Your task to perform on an android device: Show me the alarms in the clock app Image 0: 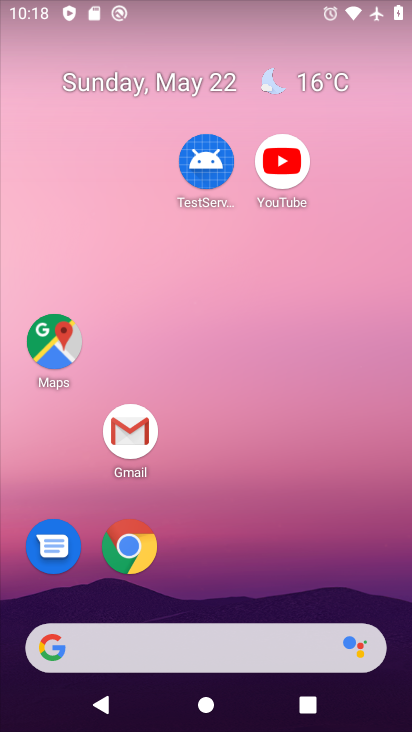
Step 0: drag from (272, 657) to (257, 23)
Your task to perform on an android device: Show me the alarms in the clock app Image 1: 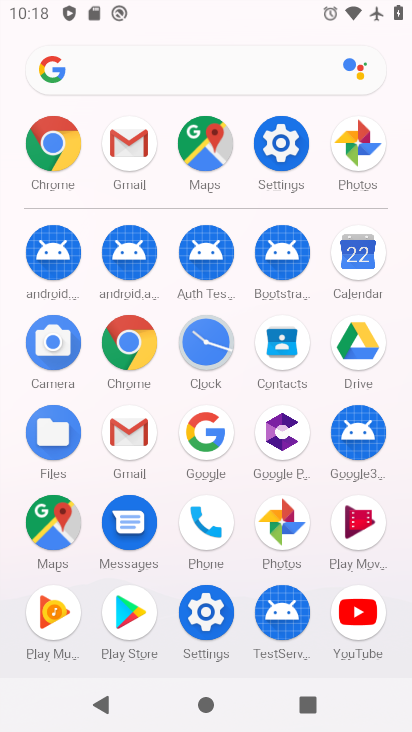
Step 1: drag from (280, 545) to (280, 4)
Your task to perform on an android device: Show me the alarms in the clock app Image 2: 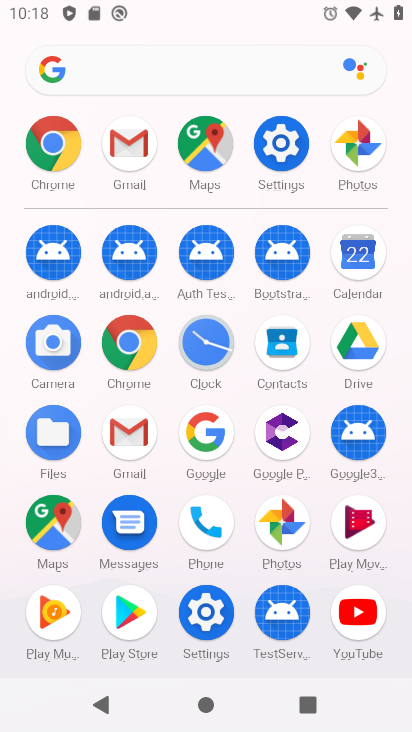
Step 2: click (213, 341)
Your task to perform on an android device: Show me the alarms in the clock app Image 3: 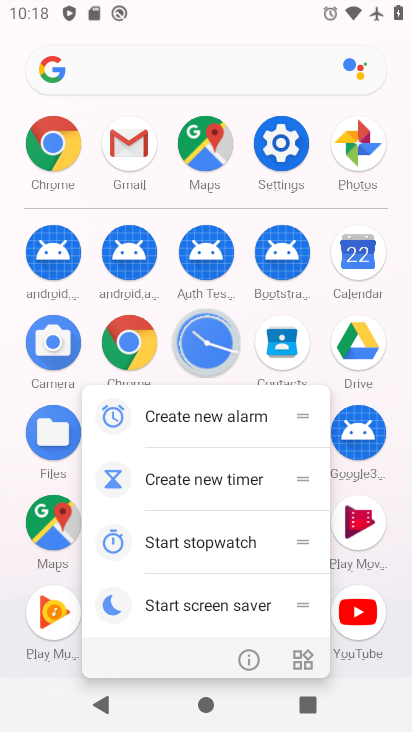
Step 3: click (212, 342)
Your task to perform on an android device: Show me the alarms in the clock app Image 4: 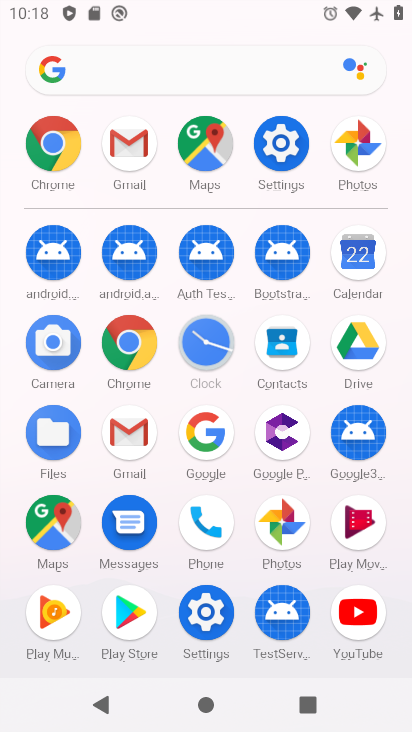
Step 4: click (212, 342)
Your task to perform on an android device: Show me the alarms in the clock app Image 5: 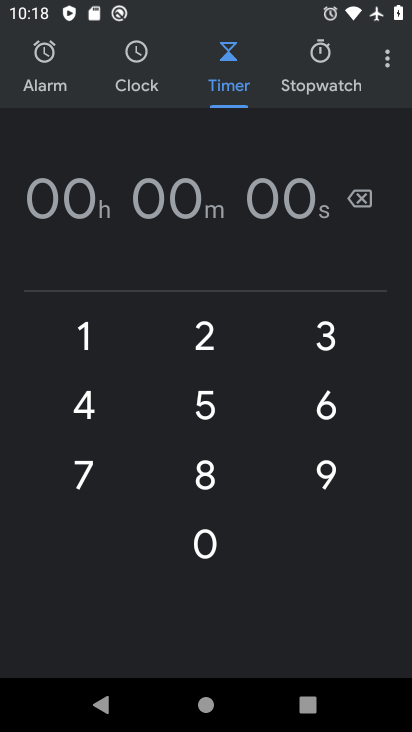
Step 5: click (135, 71)
Your task to perform on an android device: Show me the alarms in the clock app Image 6: 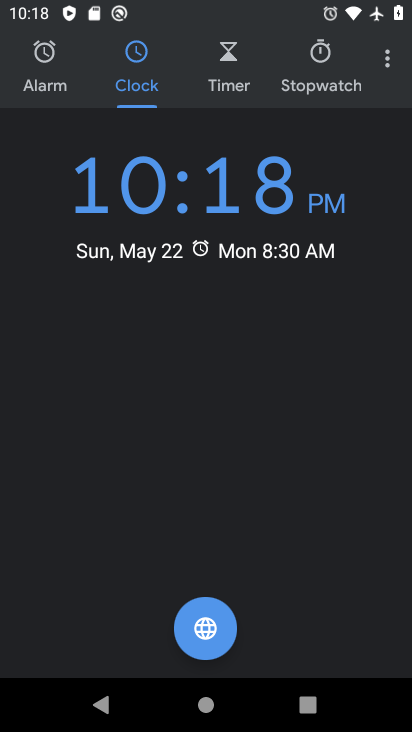
Step 6: click (40, 62)
Your task to perform on an android device: Show me the alarms in the clock app Image 7: 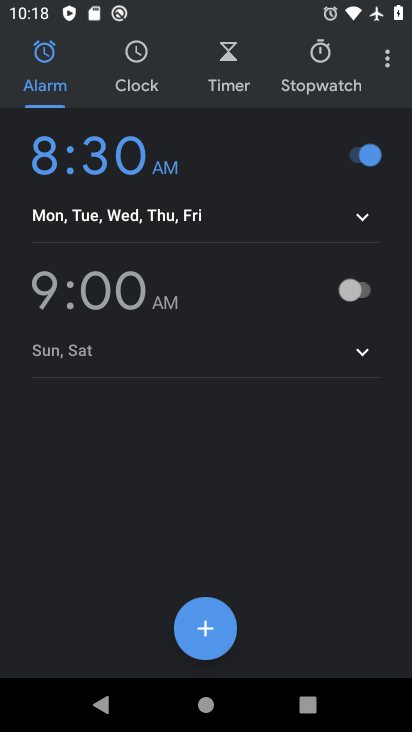
Step 7: task complete